Your task to perform on an android device: Open maps Image 0: 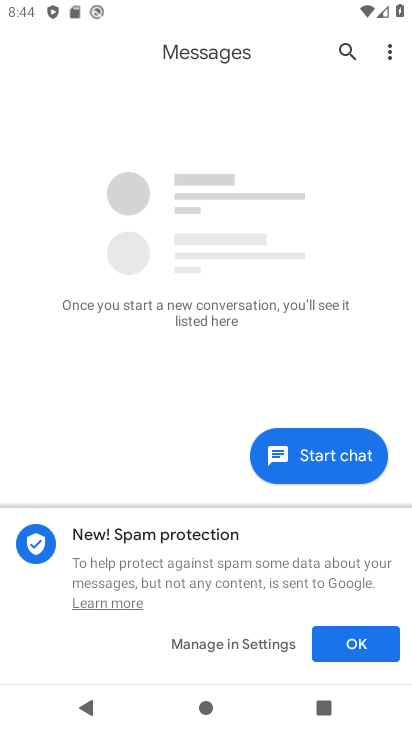
Step 0: press back button
Your task to perform on an android device: Open maps Image 1: 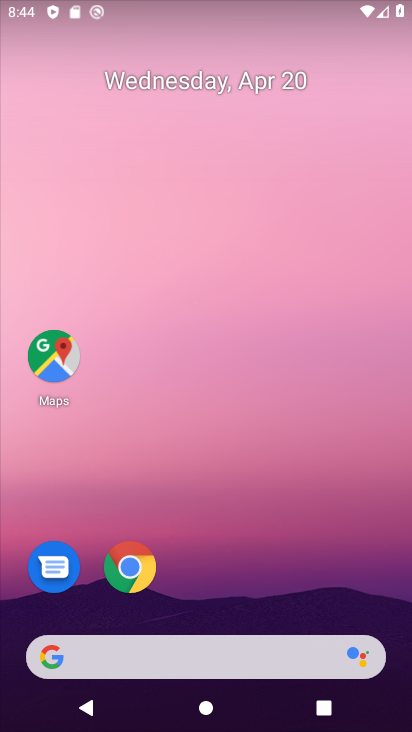
Step 1: click (46, 353)
Your task to perform on an android device: Open maps Image 2: 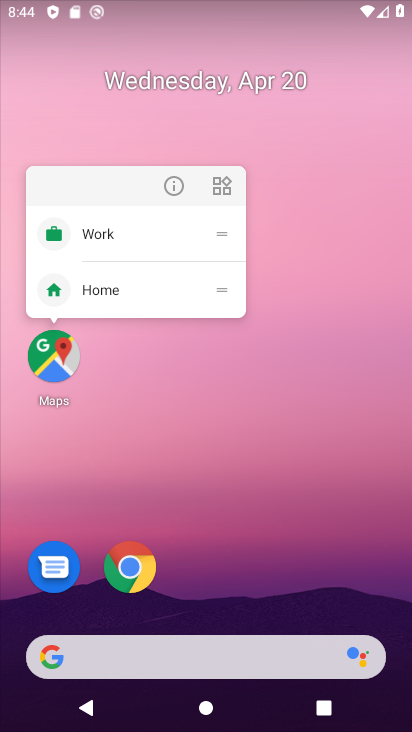
Step 2: click (69, 377)
Your task to perform on an android device: Open maps Image 3: 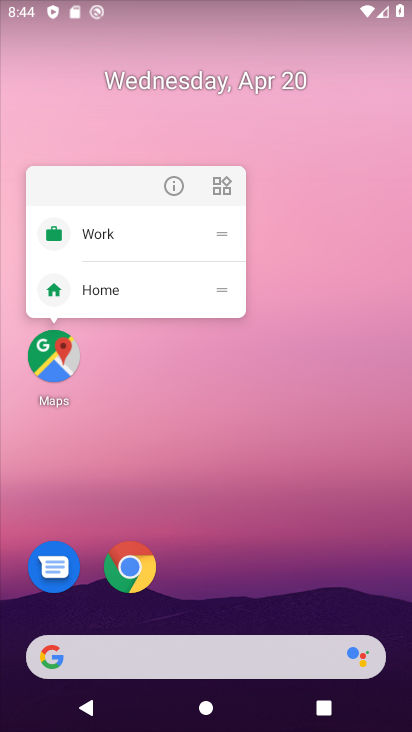
Step 3: click (56, 371)
Your task to perform on an android device: Open maps Image 4: 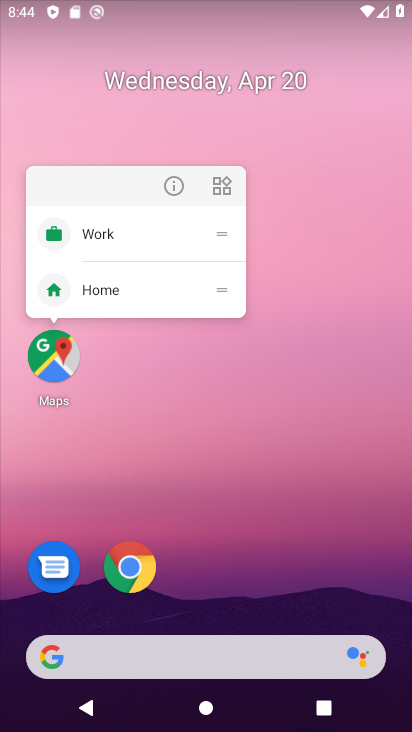
Step 4: click (56, 371)
Your task to perform on an android device: Open maps Image 5: 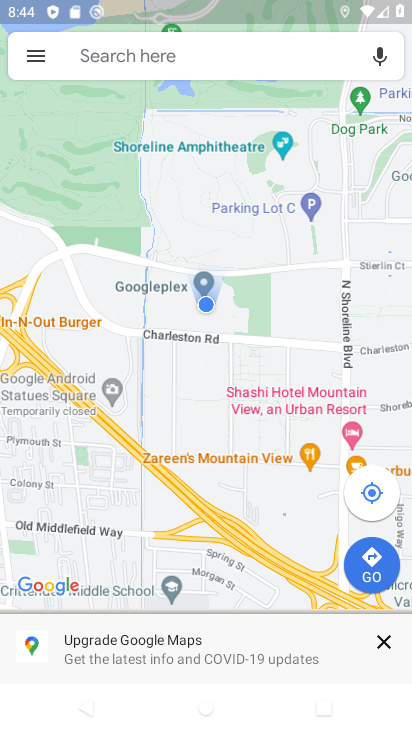
Step 5: click (386, 642)
Your task to perform on an android device: Open maps Image 6: 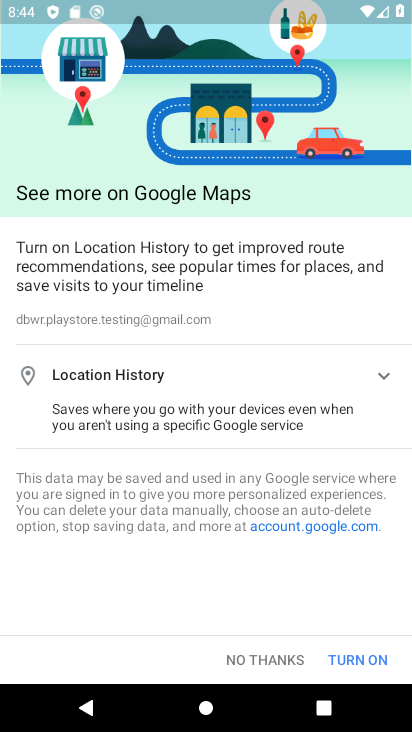
Step 6: click (243, 666)
Your task to perform on an android device: Open maps Image 7: 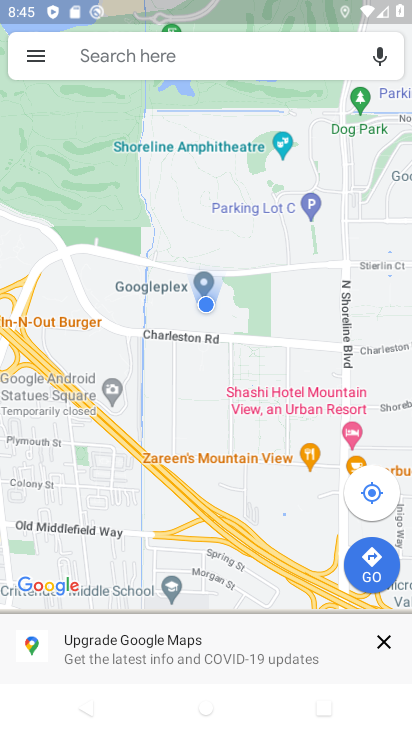
Step 7: task complete